Your task to perform on an android device: Find coffee shops on Maps Image 0: 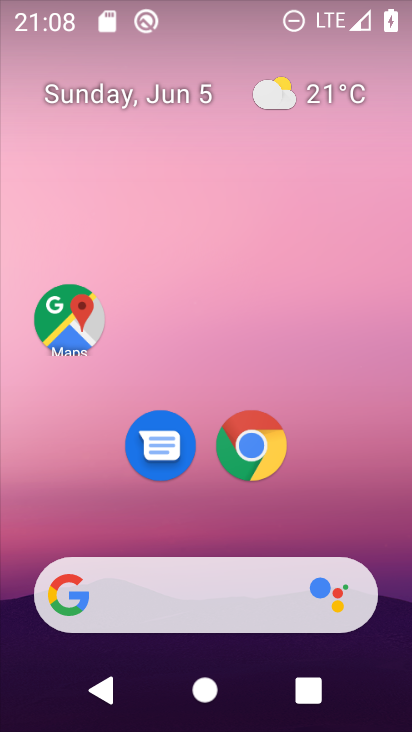
Step 0: click (76, 301)
Your task to perform on an android device: Find coffee shops on Maps Image 1: 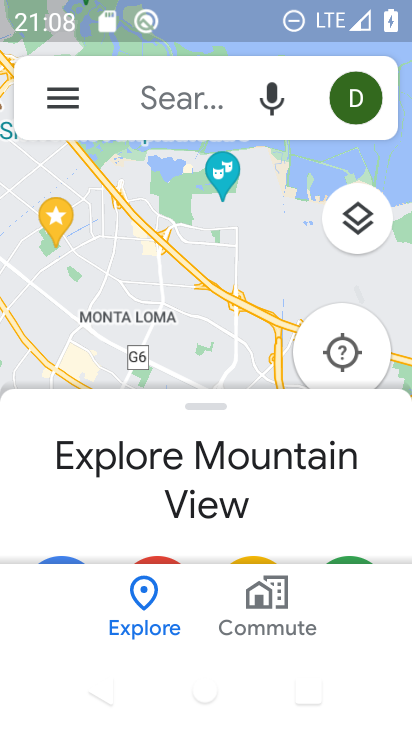
Step 1: click (201, 73)
Your task to perform on an android device: Find coffee shops on Maps Image 2: 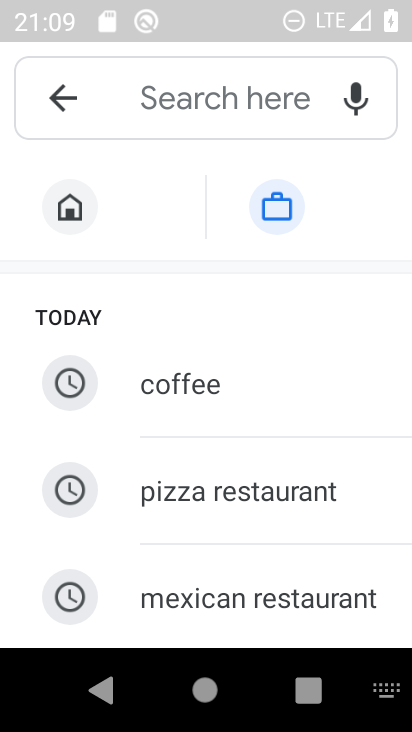
Step 2: type "coffee shops"
Your task to perform on an android device: Find coffee shops on Maps Image 3: 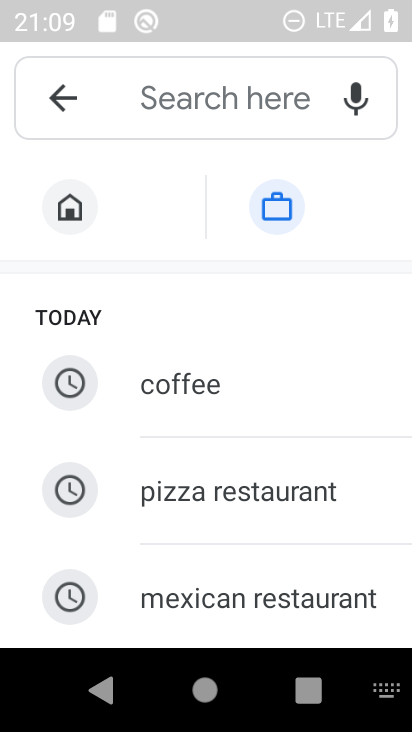
Step 3: click (197, 108)
Your task to perform on an android device: Find coffee shops on Maps Image 4: 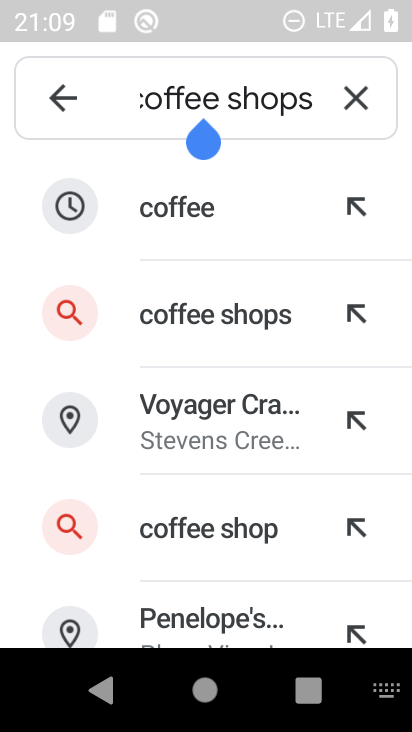
Step 4: click (182, 315)
Your task to perform on an android device: Find coffee shops on Maps Image 5: 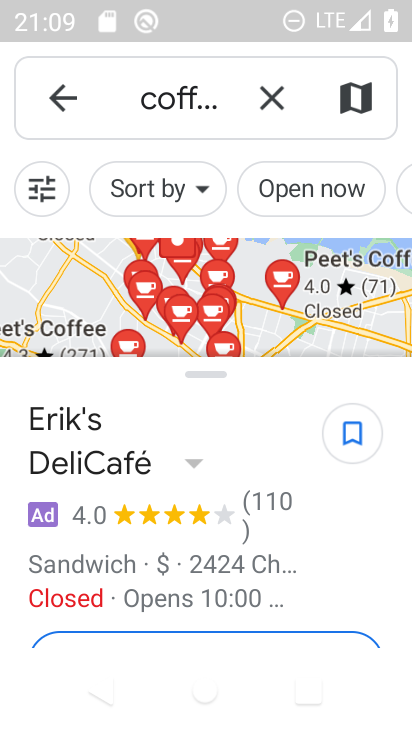
Step 5: task complete